Your task to perform on an android device: Open the map Image 0: 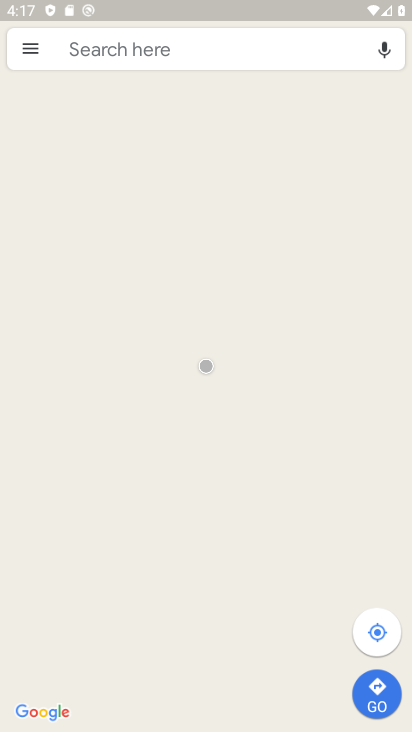
Step 0: click (68, 399)
Your task to perform on an android device: Open the map Image 1: 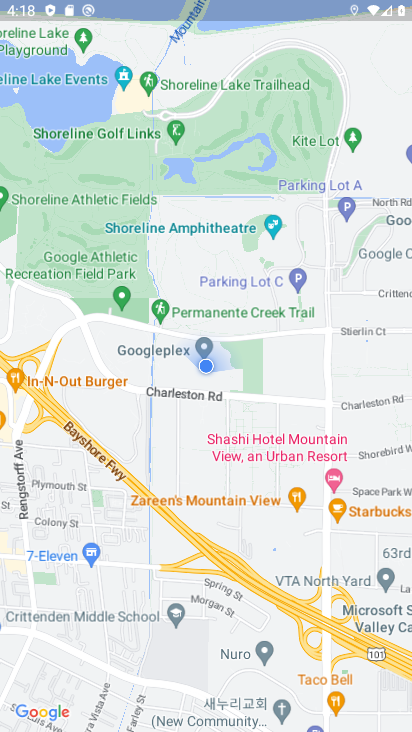
Step 1: task complete